Your task to perform on an android device: Open Wikipedia Image 0: 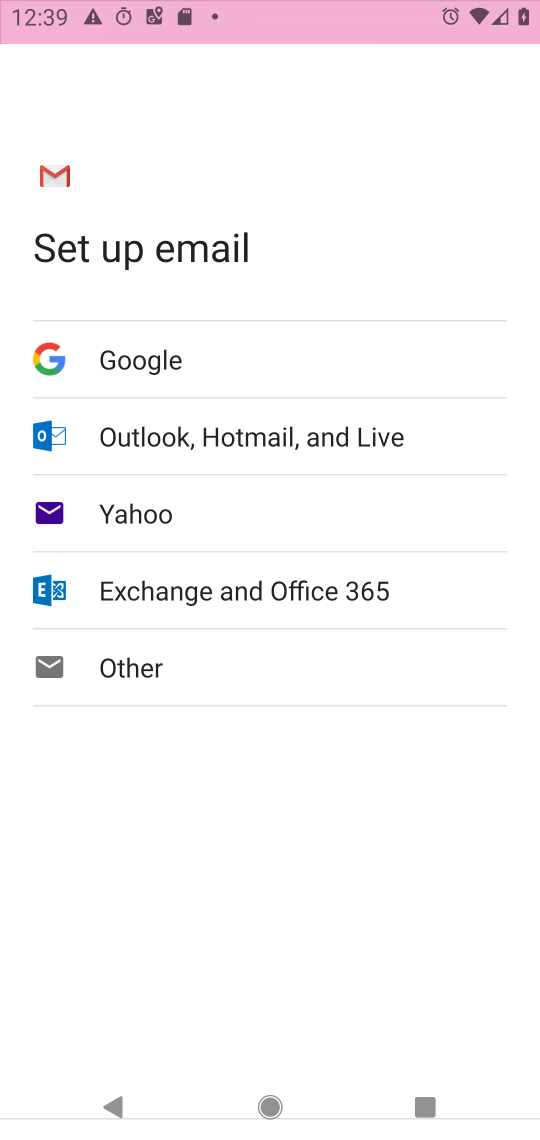
Step 0: press home button
Your task to perform on an android device: Open Wikipedia Image 1: 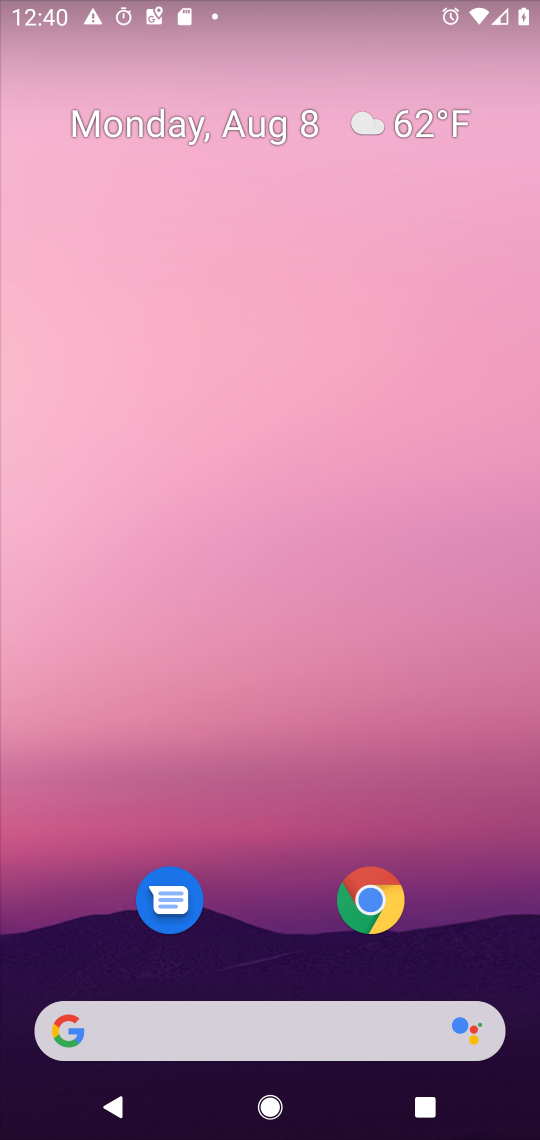
Step 1: drag from (287, 945) to (324, 92)
Your task to perform on an android device: Open Wikipedia Image 2: 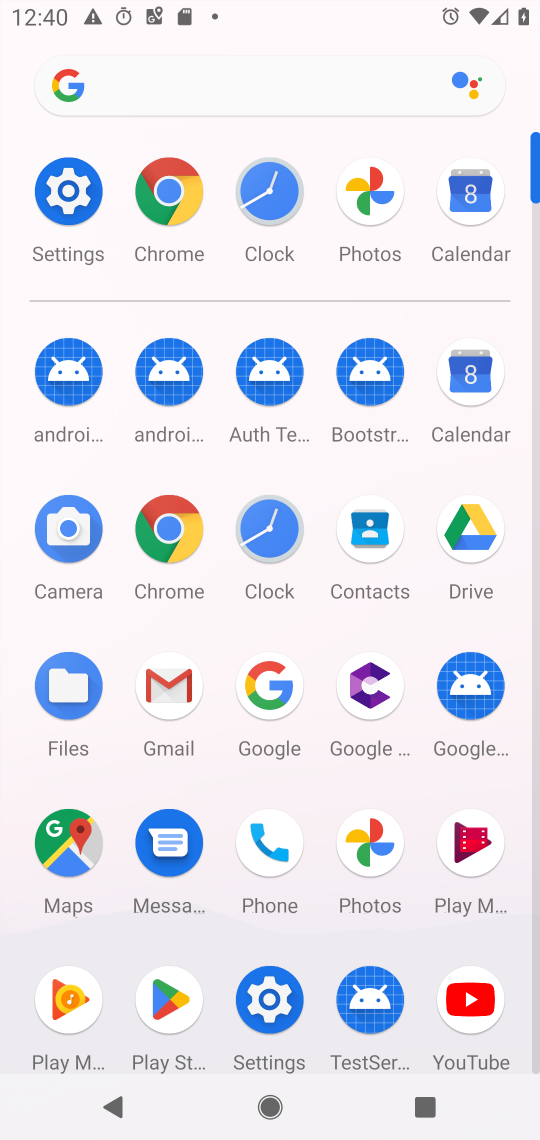
Step 2: click (172, 179)
Your task to perform on an android device: Open Wikipedia Image 3: 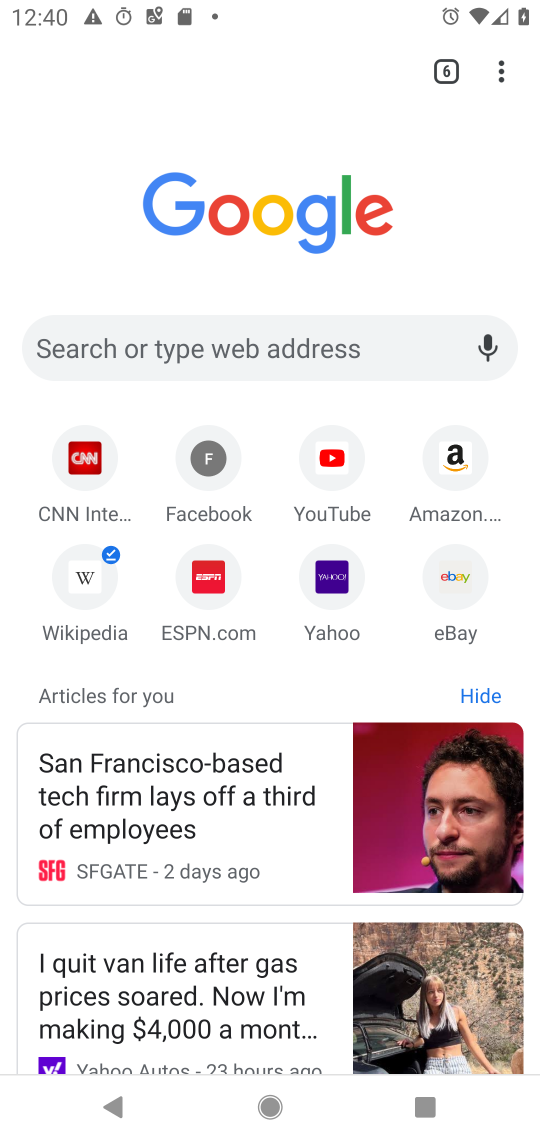
Step 3: click (82, 573)
Your task to perform on an android device: Open Wikipedia Image 4: 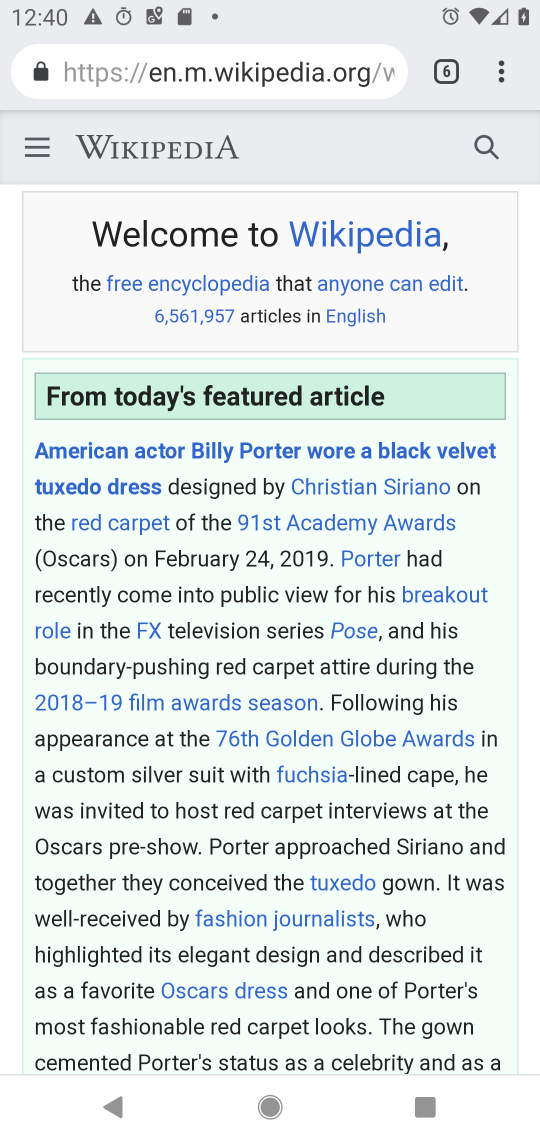
Step 4: task complete